Your task to perform on an android device: Show me popular videos on Youtube Image 0: 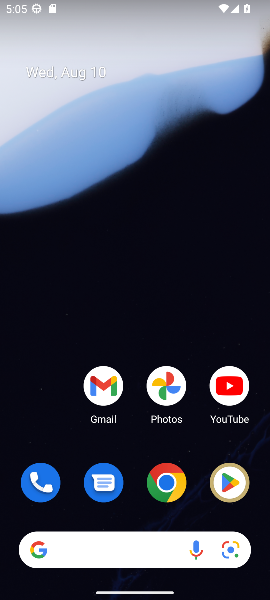
Step 0: click (232, 390)
Your task to perform on an android device: Show me popular videos on Youtube Image 1: 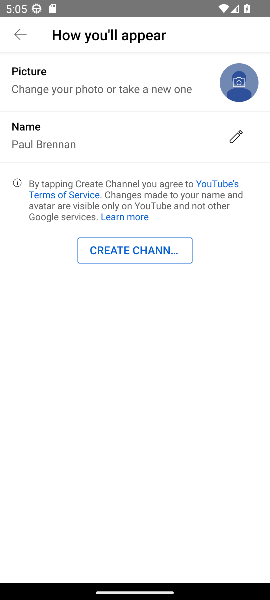
Step 1: click (18, 31)
Your task to perform on an android device: Show me popular videos on Youtube Image 2: 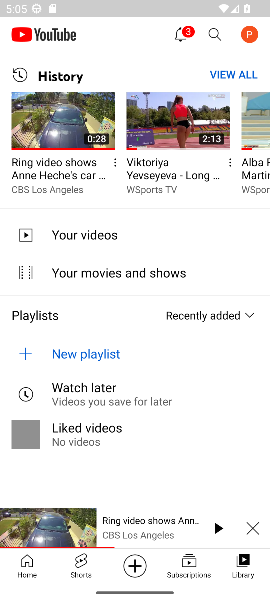
Step 2: click (212, 37)
Your task to perform on an android device: Show me popular videos on Youtube Image 3: 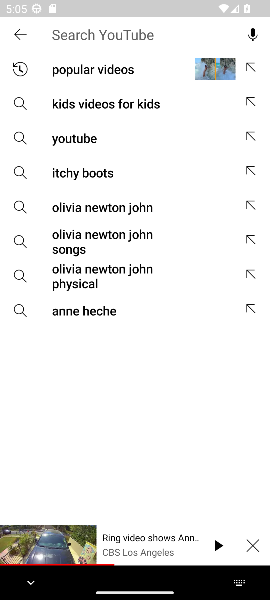
Step 3: click (114, 67)
Your task to perform on an android device: Show me popular videos on Youtube Image 4: 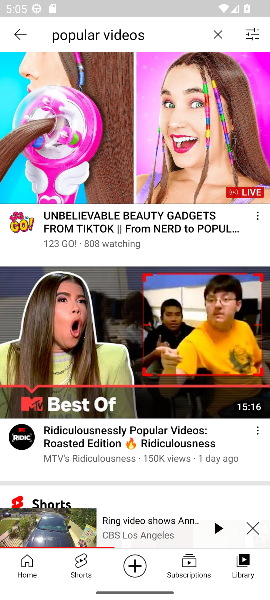
Step 4: task complete